Your task to perform on an android device: see creations saved in the google photos Image 0: 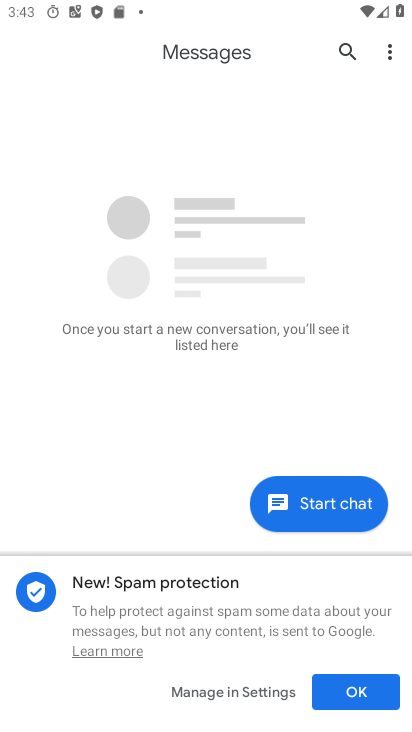
Step 0: press home button
Your task to perform on an android device: see creations saved in the google photos Image 1: 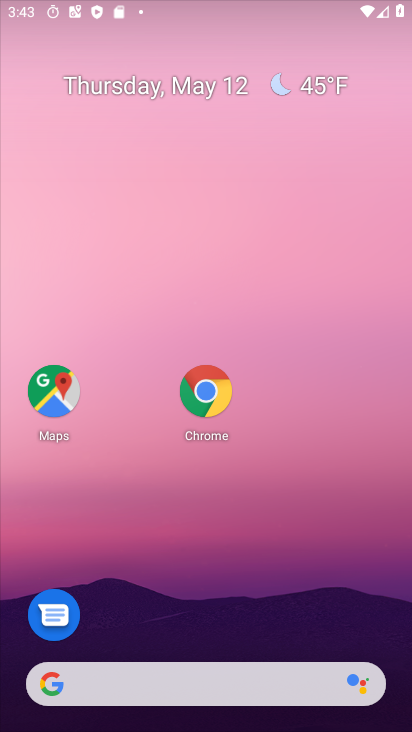
Step 1: drag from (185, 593) to (158, 29)
Your task to perform on an android device: see creations saved in the google photos Image 2: 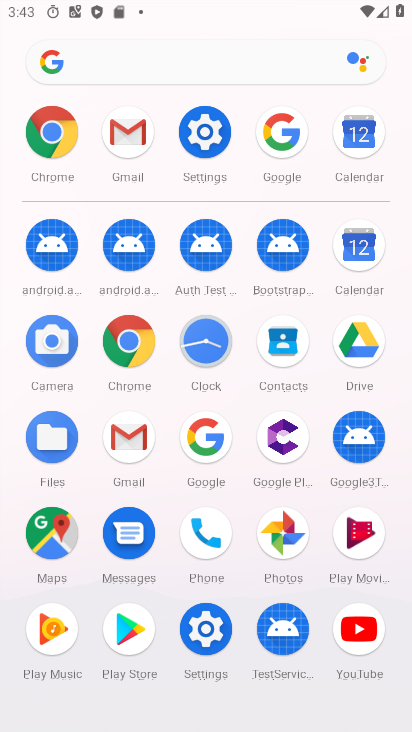
Step 2: click (284, 532)
Your task to perform on an android device: see creations saved in the google photos Image 3: 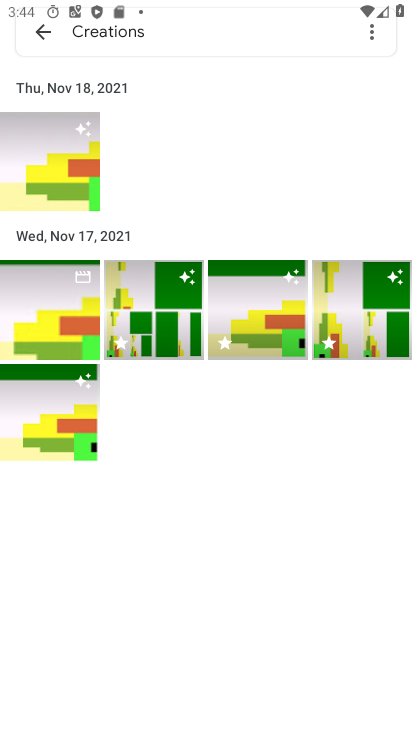
Step 3: task complete